Your task to perform on an android device: Open Wikipedia Image 0: 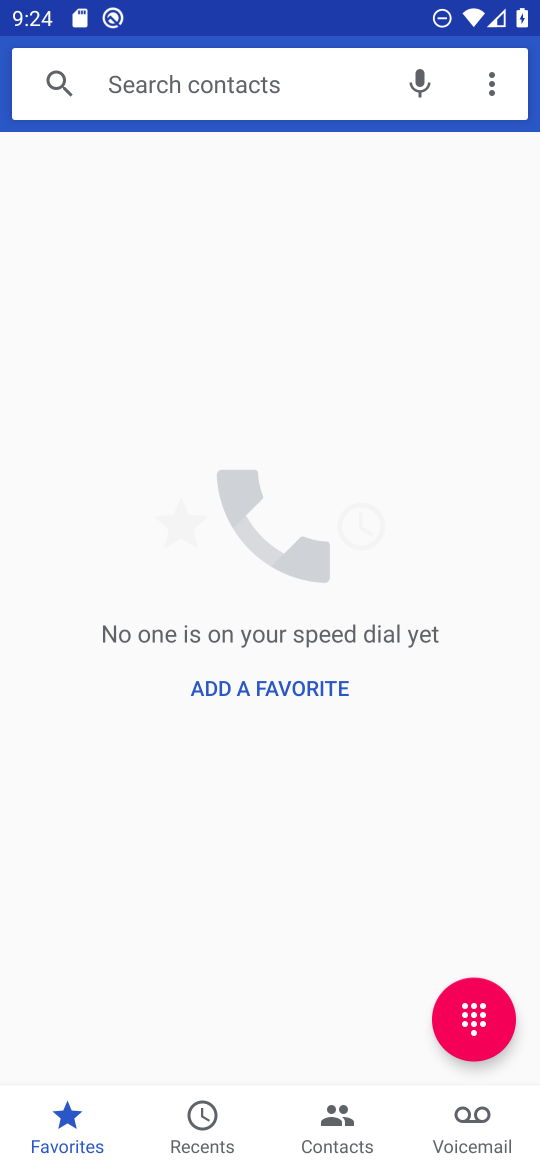
Step 0: press home button
Your task to perform on an android device: Open Wikipedia Image 1: 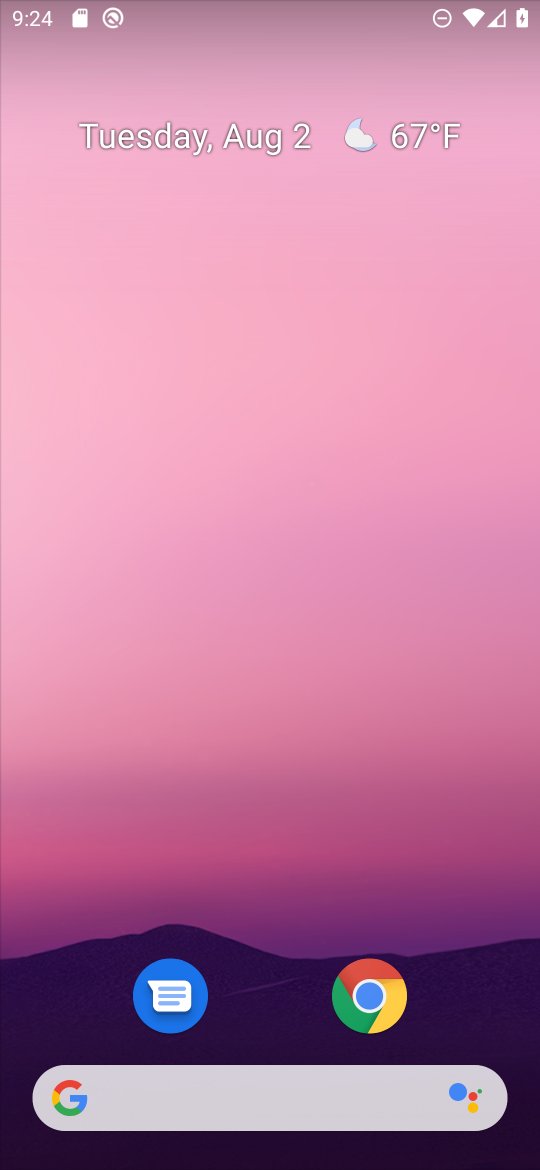
Step 1: drag from (258, 1005) to (274, 147)
Your task to perform on an android device: Open Wikipedia Image 2: 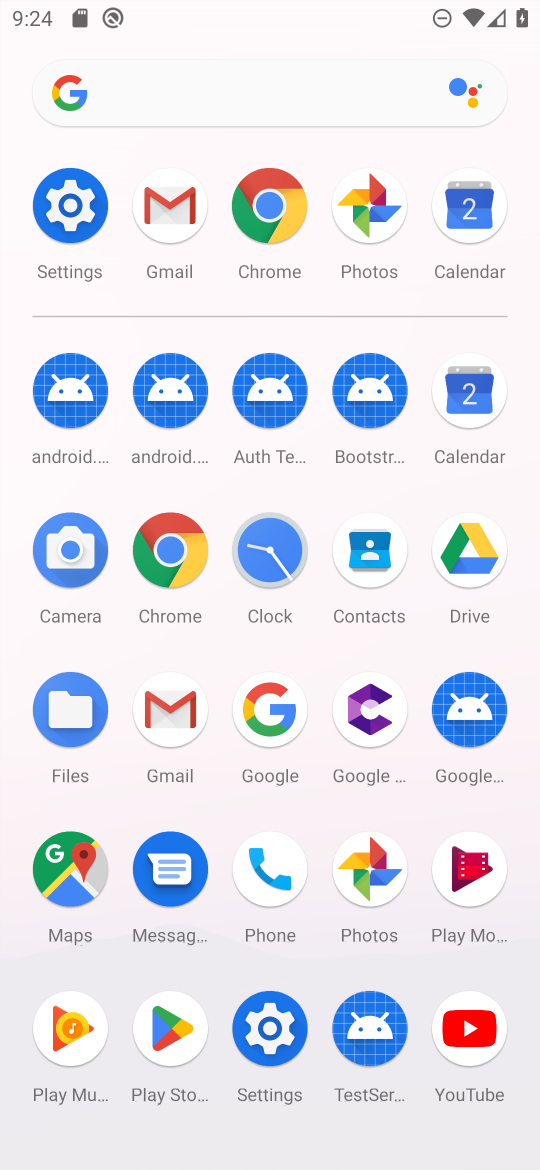
Step 2: click (175, 540)
Your task to perform on an android device: Open Wikipedia Image 3: 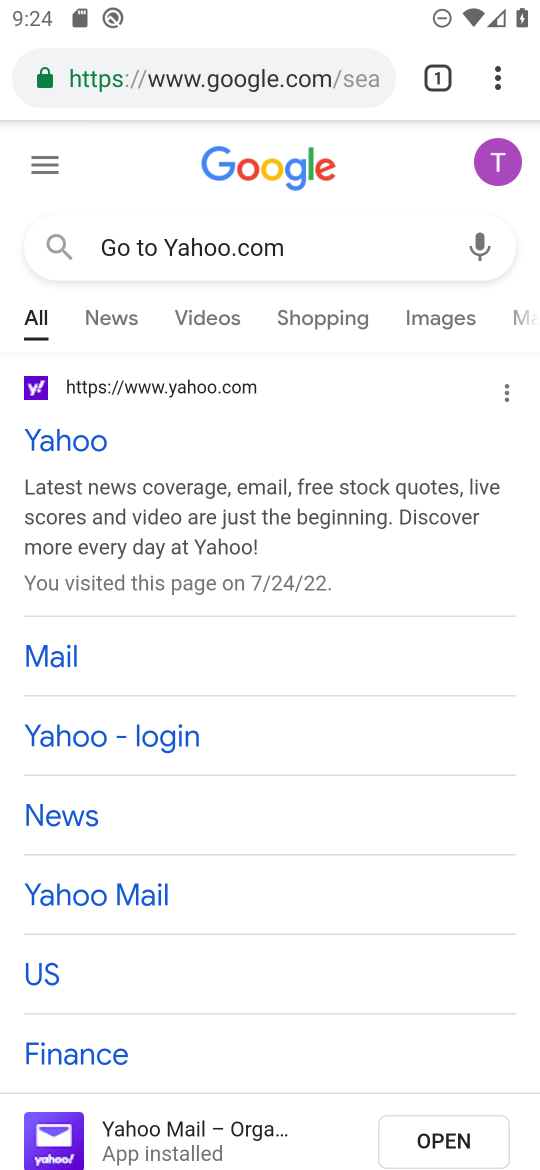
Step 3: click (268, 74)
Your task to perform on an android device: Open Wikipedia Image 4: 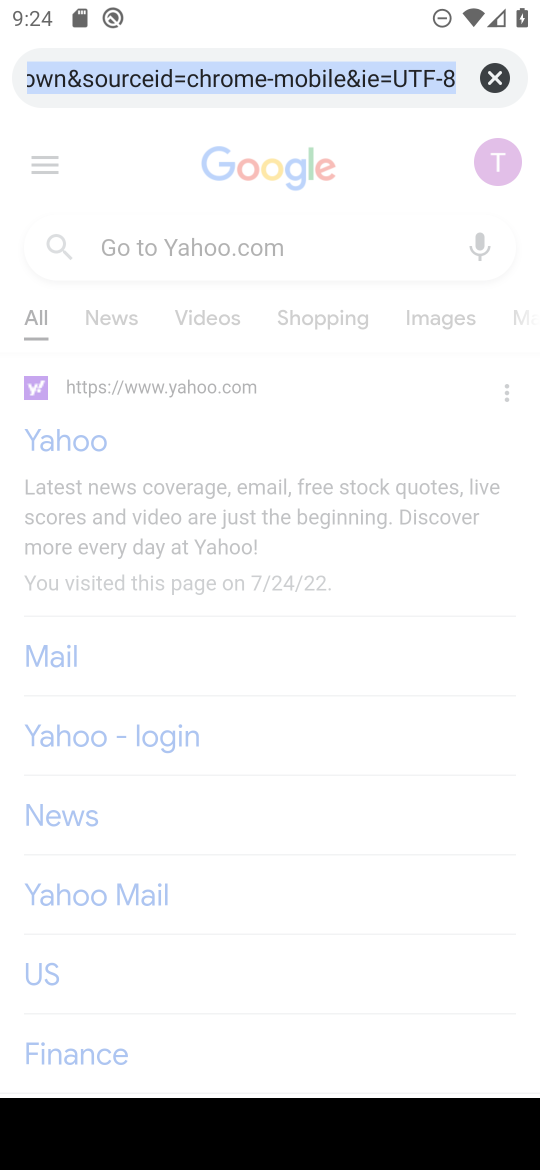
Step 4: click (488, 72)
Your task to perform on an android device: Open Wikipedia Image 5: 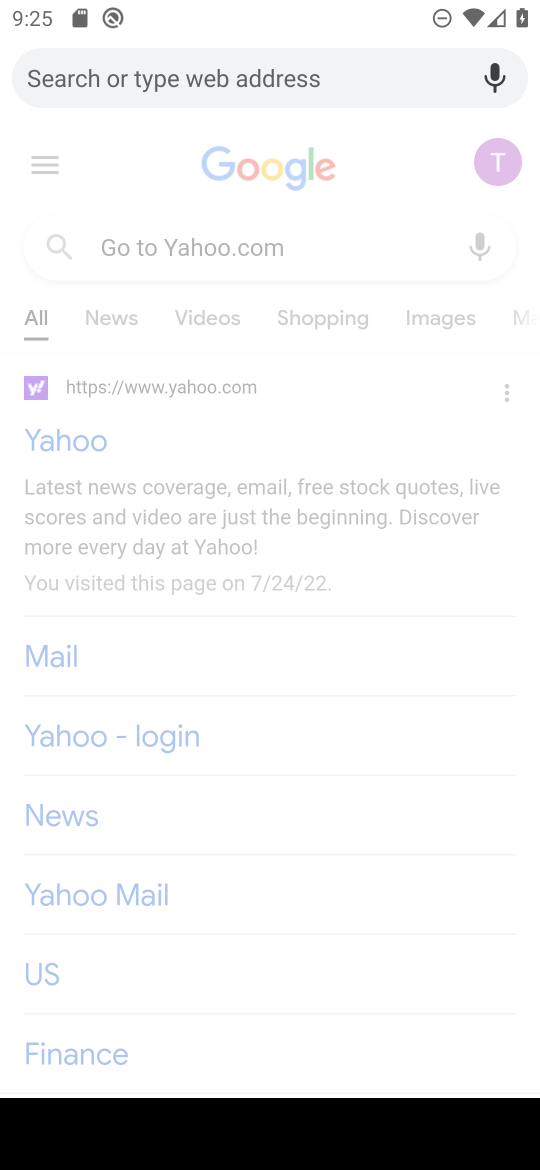
Step 5: type "Wikpedia"
Your task to perform on an android device: Open Wikipedia Image 6: 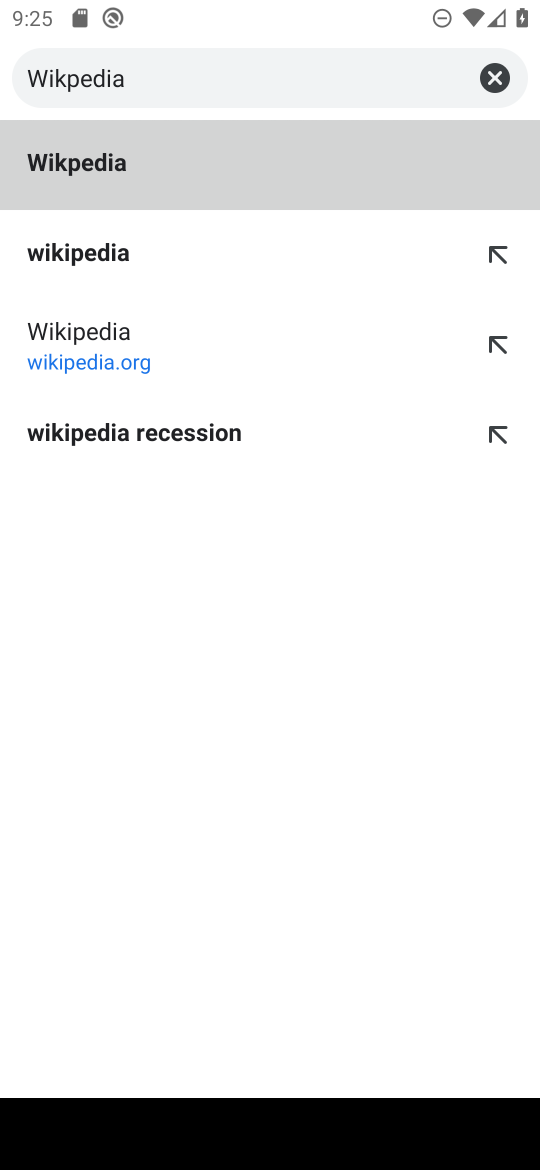
Step 6: click (71, 157)
Your task to perform on an android device: Open Wikipedia Image 7: 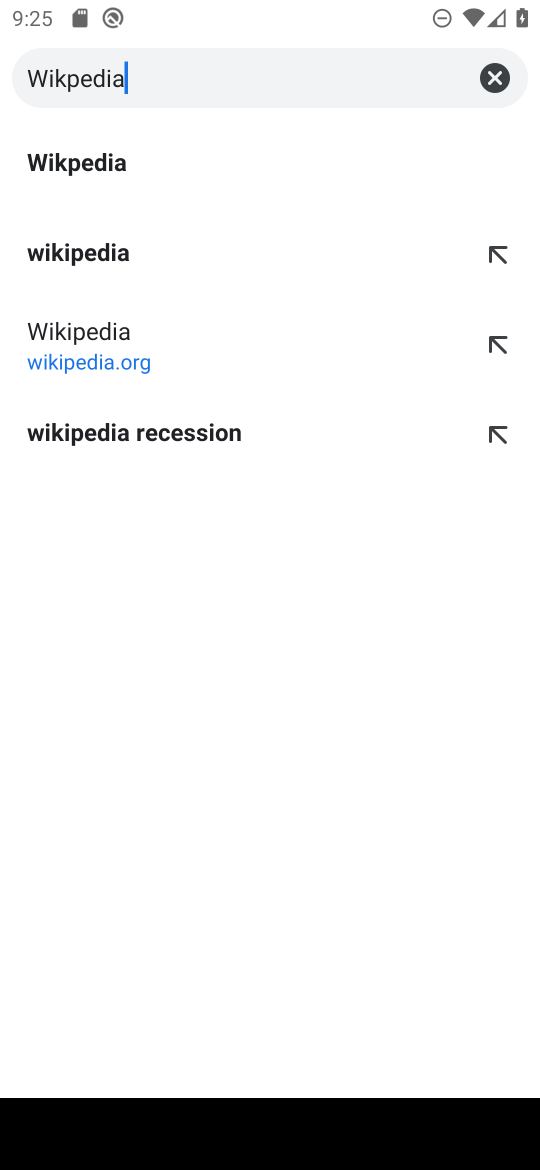
Step 7: click (104, 166)
Your task to perform on an android device: Open Wikipedia Image 8: 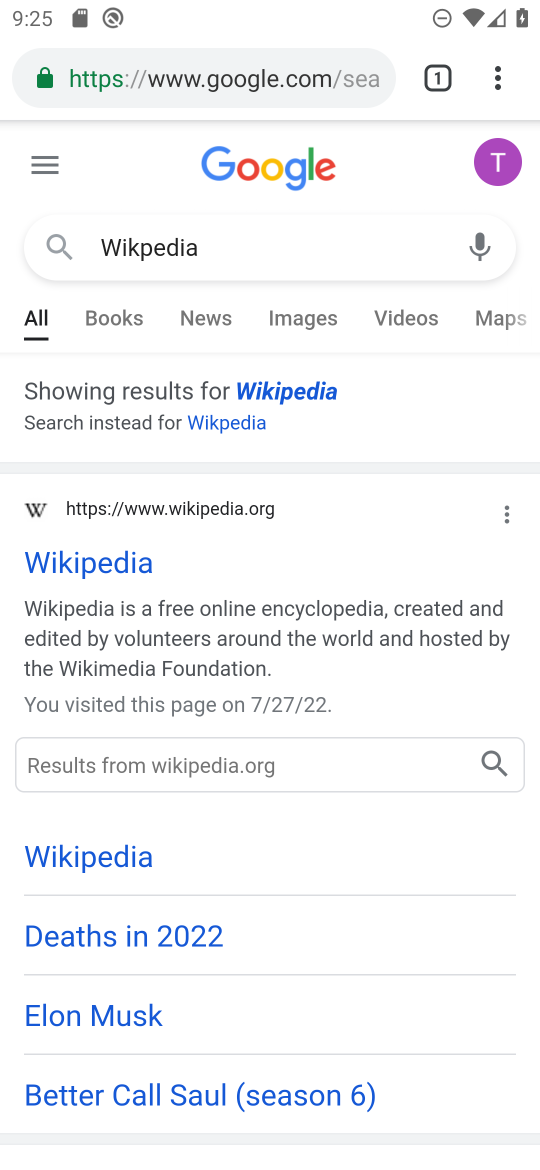
Step 8: click (85, 561)
Your task to perform on an android device: Open Wikipedia Image 9: 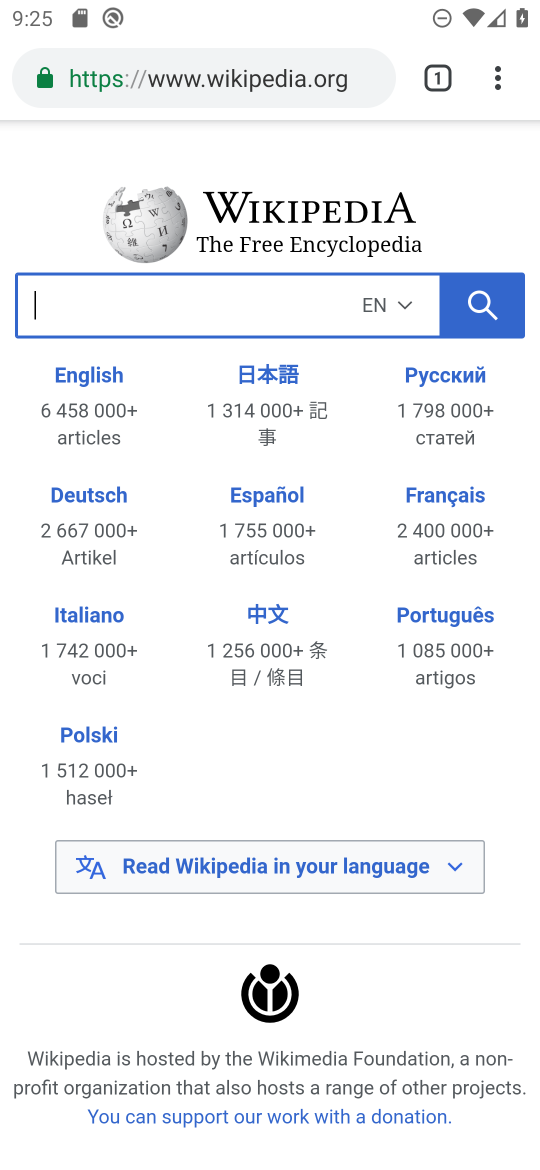
Step 9: task complete